Your task to perform on an android device: Go to location settings Image 0: 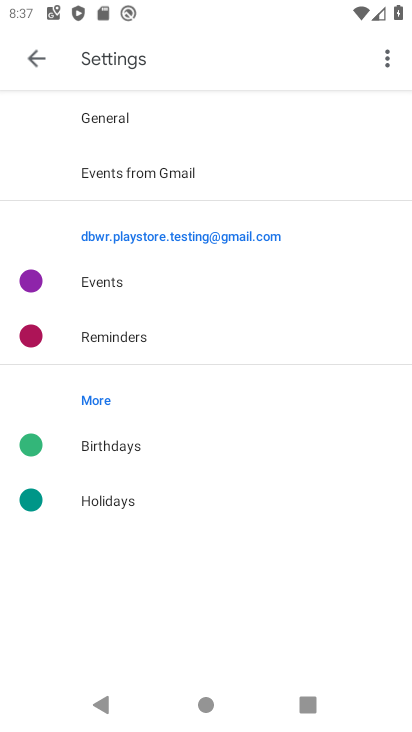
Step 0: press home button
Your task to perform on an android device: Go to location settings Image 1: 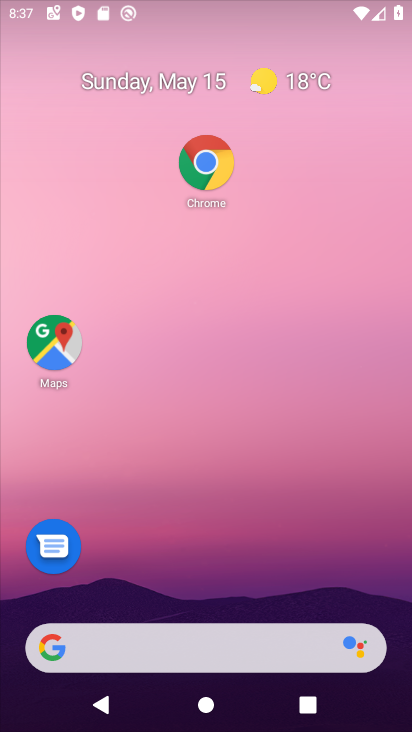
Step 1: drag from (249, 494) to (266, 169)
Your task to perform on an android device: Go to location settings Image 2: 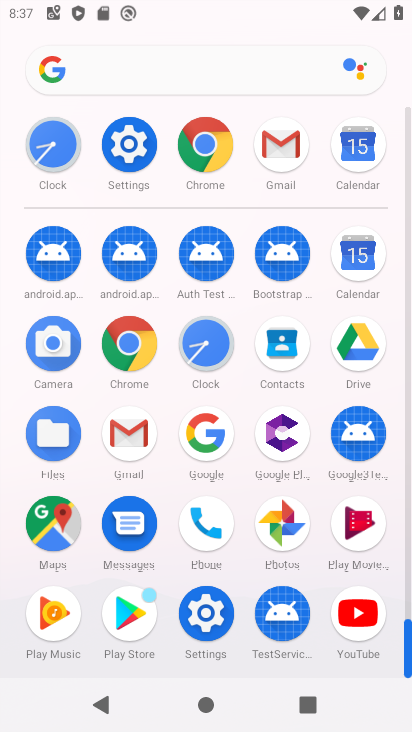
Step 2: click (130, 129)
Your task to perform on an android device: Go to location settings Image 3: 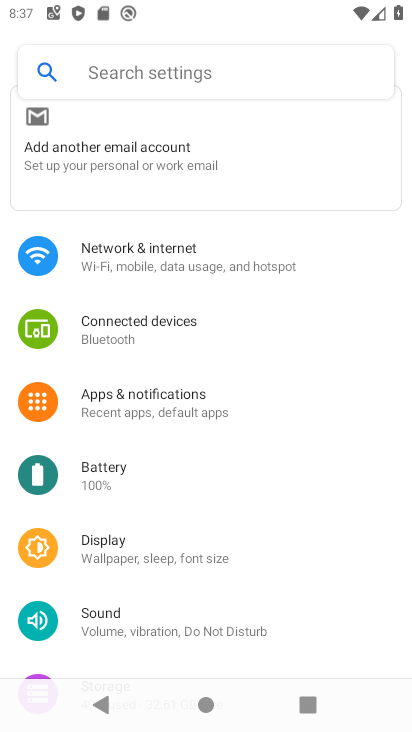
Step 3: drag from (166, 571) to (248, 259)
Your task to perform on an android device: Go to location settings Image 4: 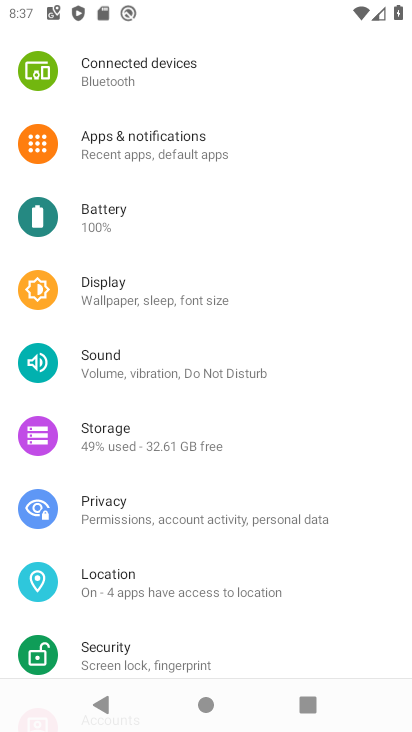
Step 4: click (148, 570)
Your task to perform on an android device: Go to location settings Image 5: 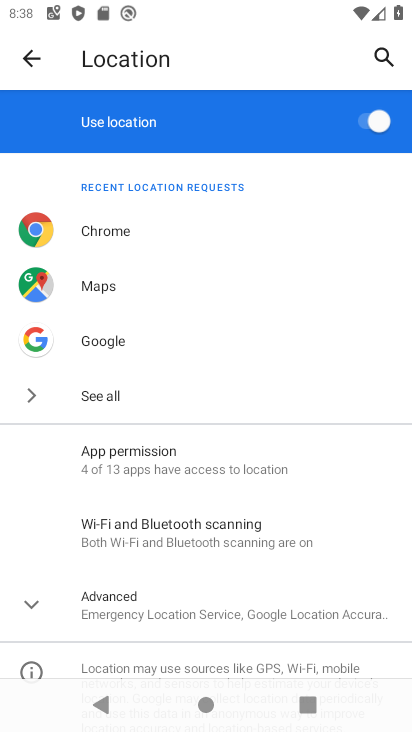
Step 5: task complete